Your task to perform on an android device: toggle airplane mode Image 0: 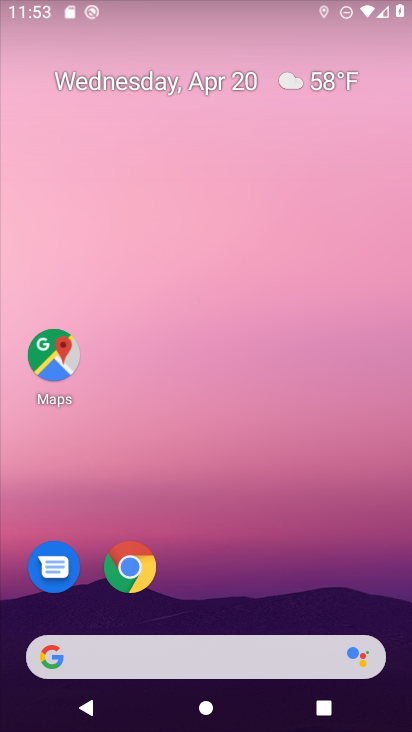
Step 0: drag from (226, 593) to (330, 76)
Your task to perform on an android device: toggle airplane mode Image 1: 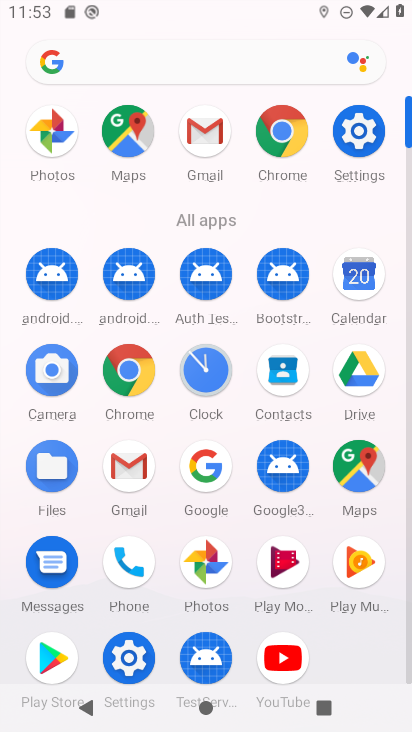
Step 1: click (371, 136)
Your task to perform on an android device: toggle airplane mode Image 2: 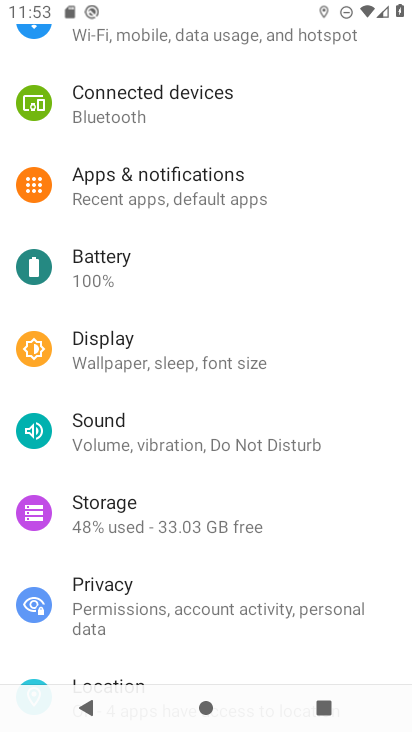
Step 2: click (326, 43)
Your task to perform on an android device: toggle airplane mode Image 3: 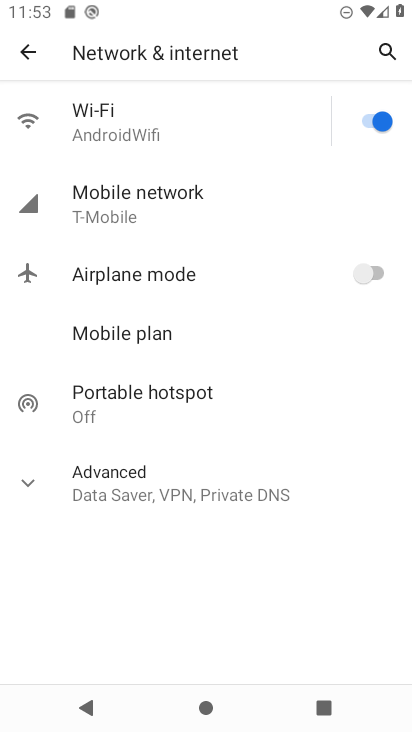
Step 3: click (392, 269)
Your task to perform on an android device: toggle airplane mode Image 4: 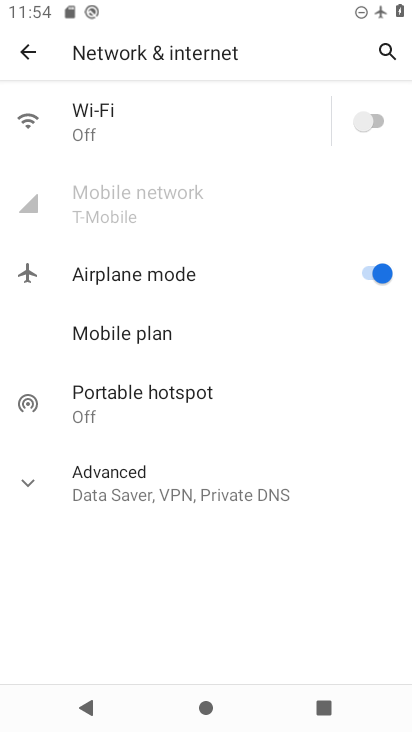
Step 4: task complete